Your task to perform on an android device: open a new tab in the chrome app Image 0: 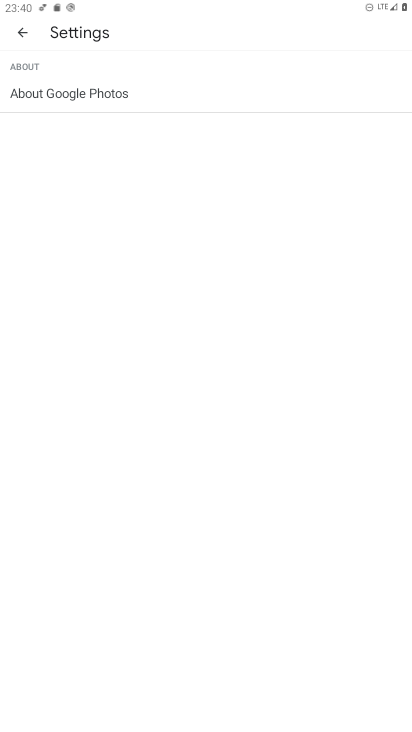
Step 0: press back button
Your task to perform on an android device: open a new tab in the chrome app Image 1: 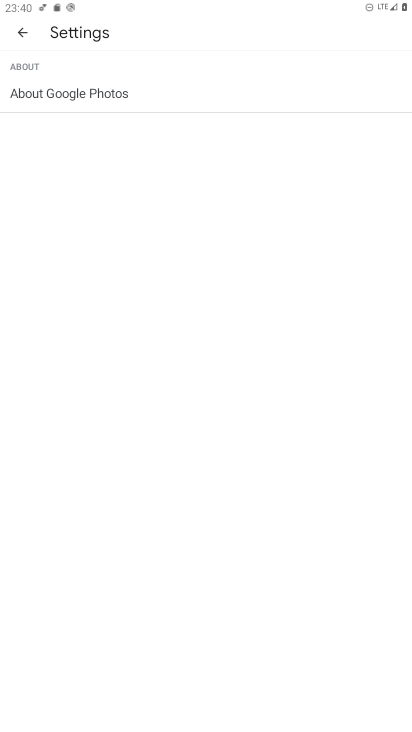
Step 1: press back button
Your task to perform on an android device: open a new tab in the chrome app Image 2: 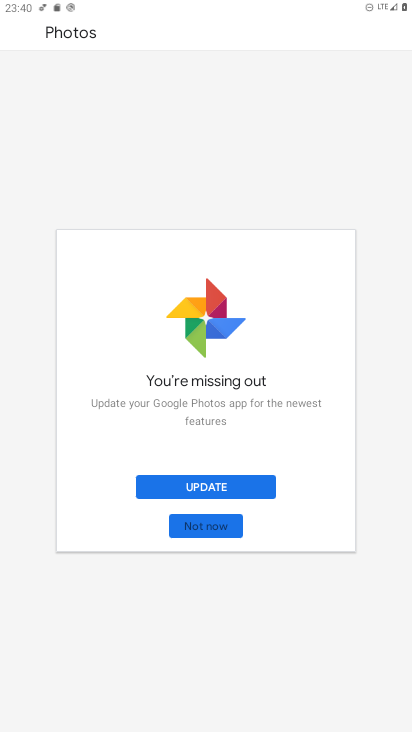
Step 2: press home button
Your task to perform on an android device: open a new tab in the chrome app Image 3: 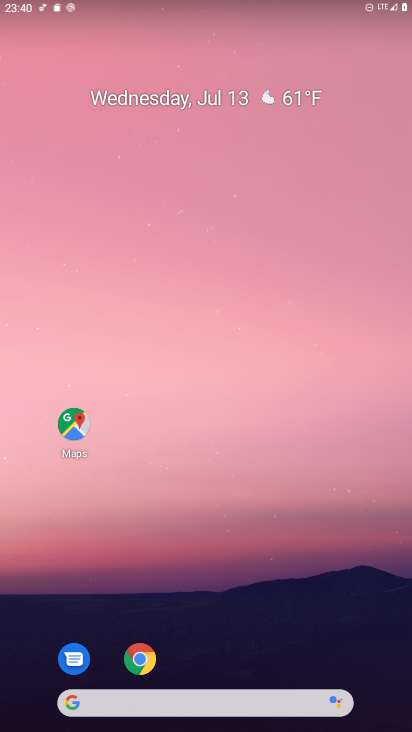
Step 3: click (140, 660)
Your task to perform on an android device: open a new tab in the chrome app Image 4: 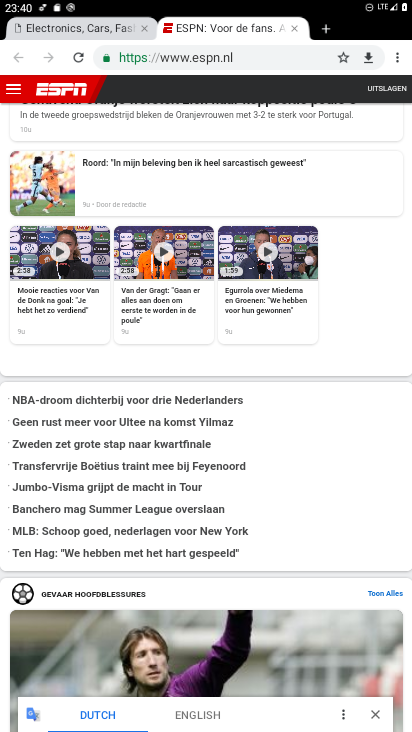
Step 4: click (396, 63)
Your task to perform on an android device: open a new tab in the chrome app Image 5: 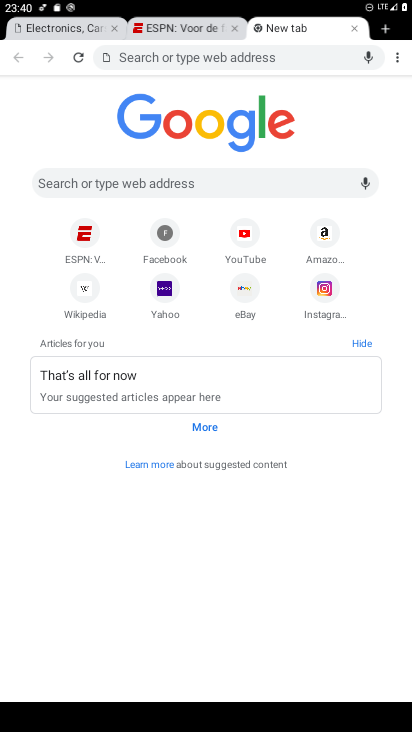
Step 5: click (396, 57)
Your task to perform on an android device: open a new tab in the chrome app Image 6: 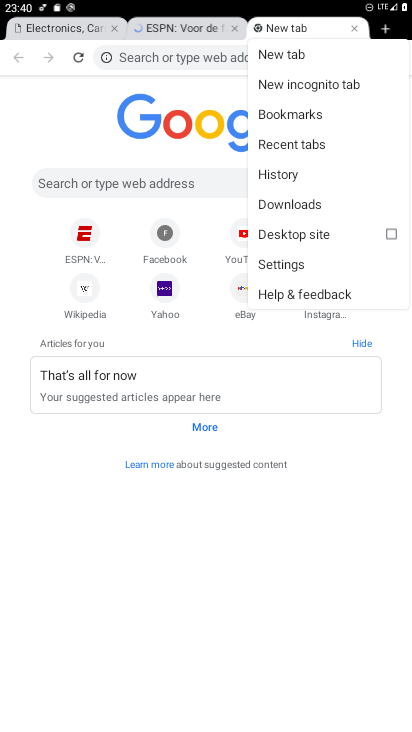
Step 6: task complete